Your task to perform on an android device: Open settings on Google Maps Image 0: 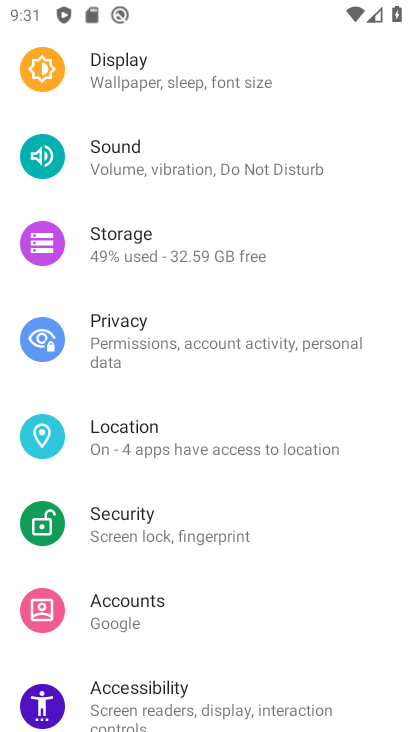
Step 0: press home button
Your task to perform on an android device: Open settings on Google Maps Image 1: 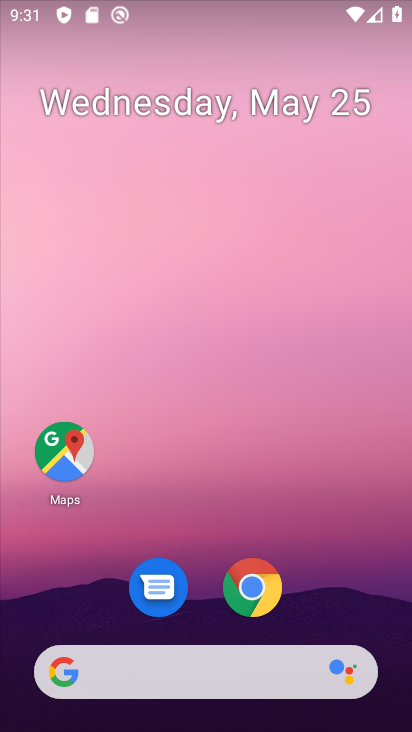
Step 1: drag from (210, 631) to (238, 134)
Your task to perform on an android device: Open settings on Google Maps Image 2: 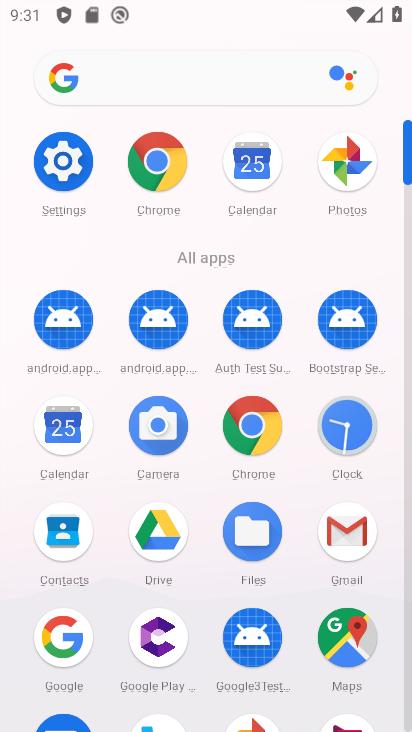
Step 2: click (349, 652)
Your task to perform on an android device: Open settings on Google Maps Image 3: 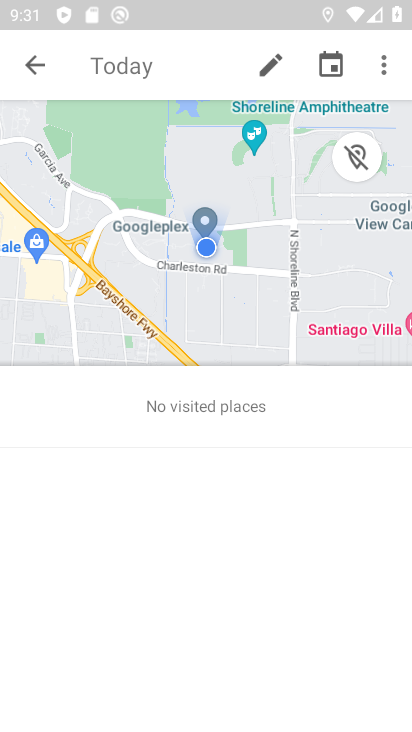
Step 3: click (40, 71)
Your task to perform on an android device: Open settings on Google Maps Image 4: 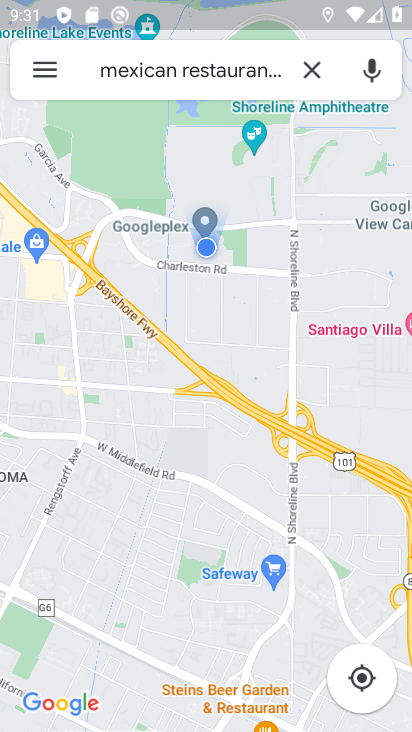
Step 4: click (40, 70)
Your task to perform on an android device: Open settings on Google Maps Image 5: 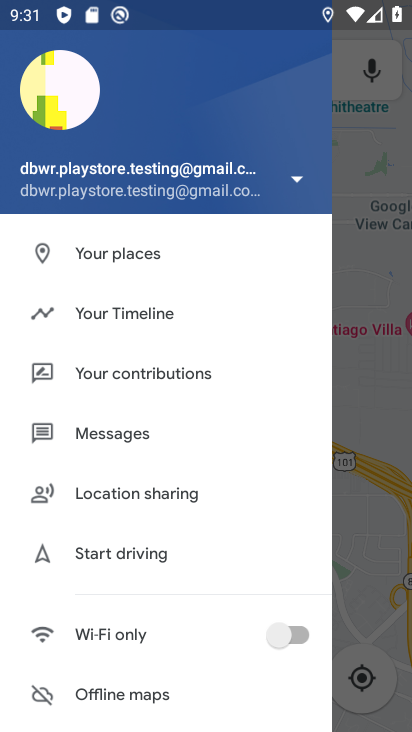
Step 5: drag from (105, 586) to (147, 87)
Your task to perform on an android device: Open settings on Google Maps Image 6: 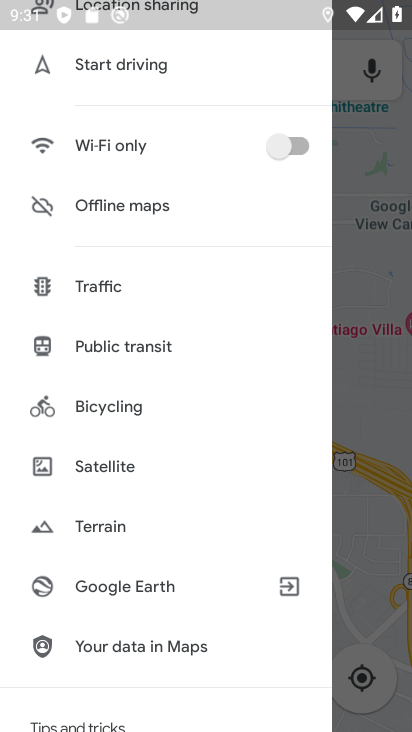
Step 6: drag from (127, 628) to (100, 344)
Your task to perform on an android device: Open settings on Google Maps Image 7: 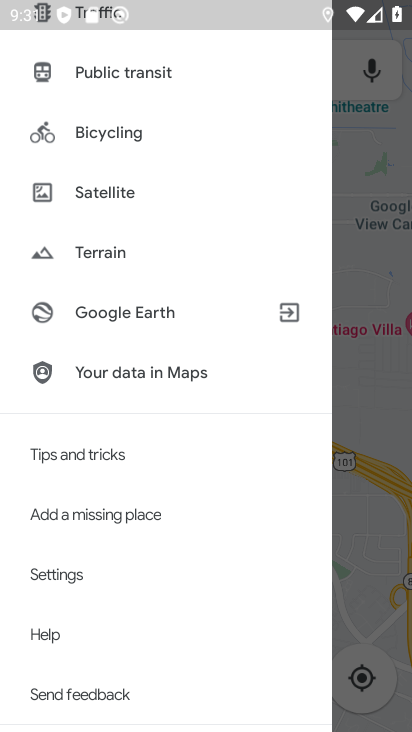
Step 7: click (74, 581)
Your task to perform on an android device: Open settings on Google Maps Image 8: 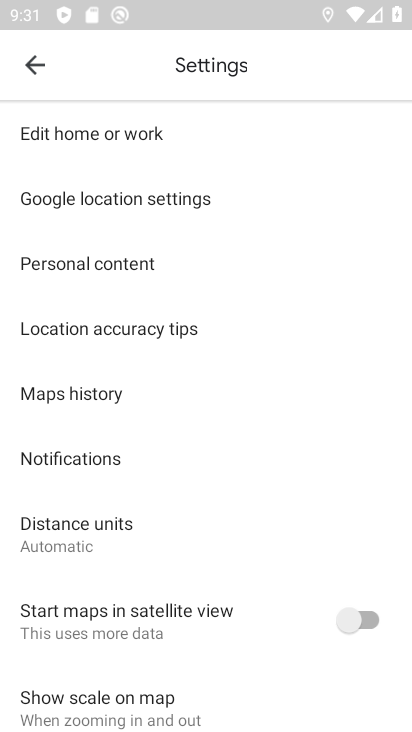
Step 8: task complete